Your task to perform on an android device: Go to sound settings Image 0: 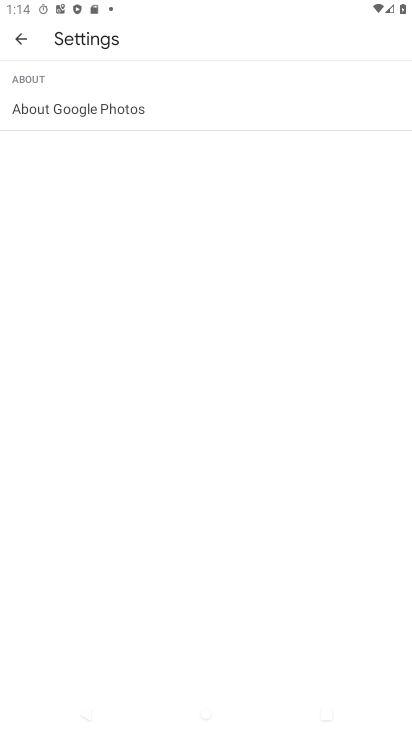
Step 0: press home button
Your task to perform on an android device: Go to sound settings Image 1: 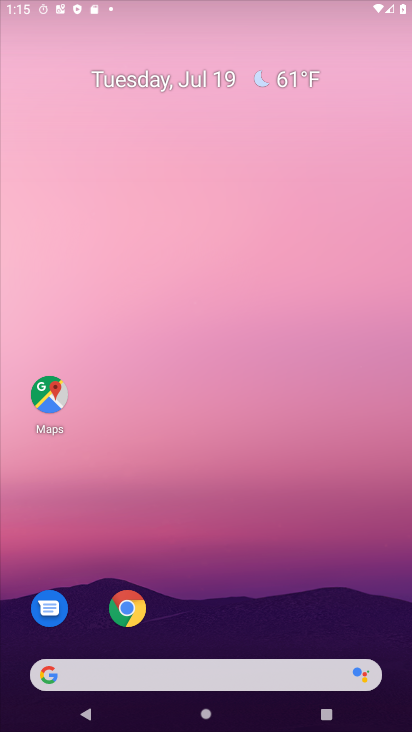
Step 1: drag from (330, 555) to (311, 7)
Your task to perform on an android device: Go to sound settings Image 2: 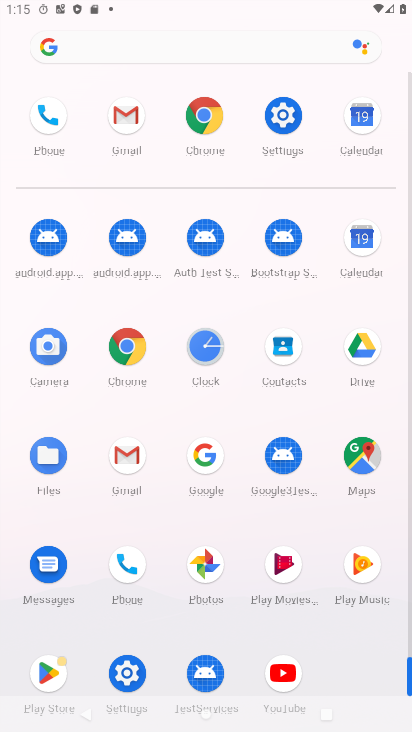
Step 2: click (270, 114)
Your task to perform on an android device: Go to sound settings Image 3: 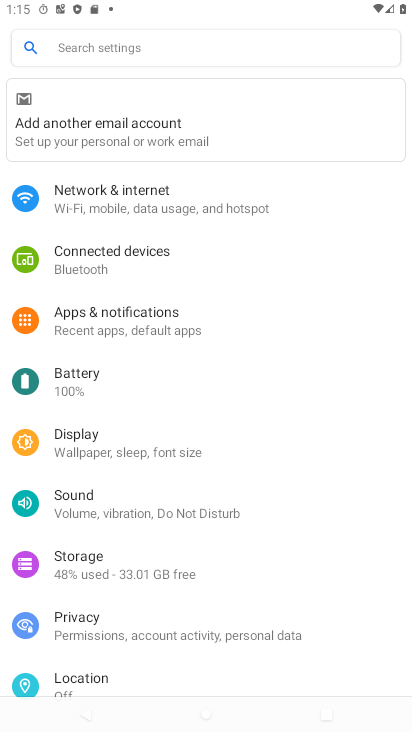
Step 3: click (97, 512)
Your task to perform on an android device: Go to sound settings Image 4: 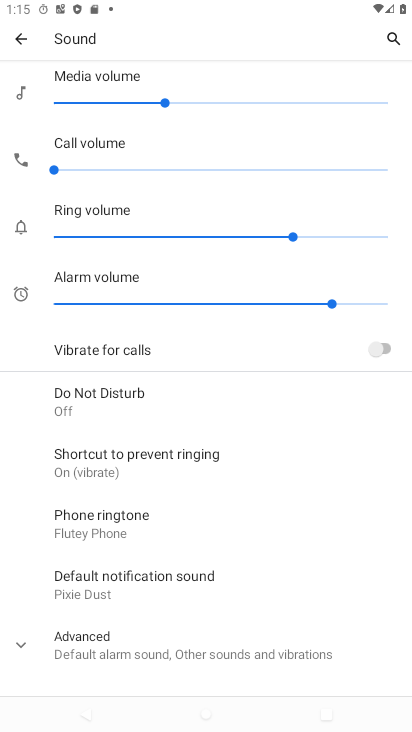
Step 4: task complete